Your task to perform on an android device: Show me productivity apps on the Play Store Image 0: 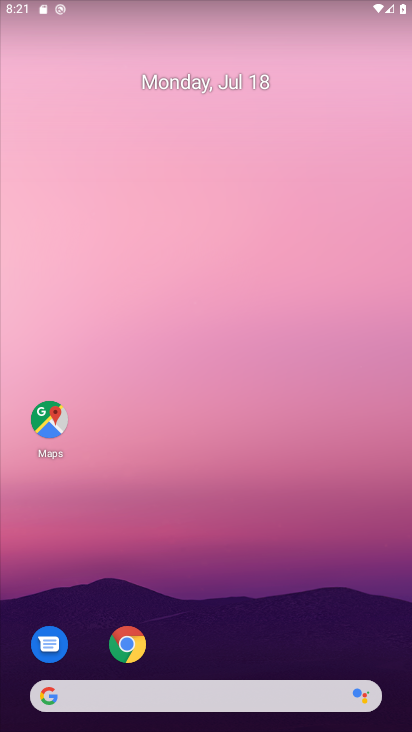
Step 0: drag from (234, 649) to (199, 14)
Your task to perform on an android device: Show me productivity apps on the Play Store Image 1: 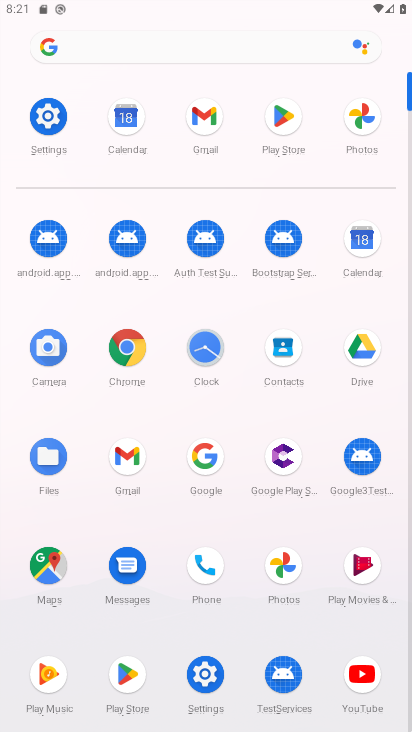
Step 1: click (272, 129)
Your task to perform on an android device: Show me productivity apps on the Play Store Image 2: 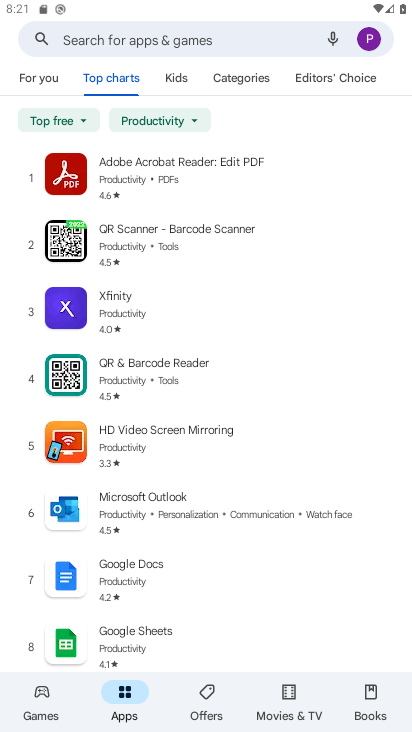
Step 2: task complete